Your task to perform on an android device: Open the phone app and click the voicemail tab. Image 0: 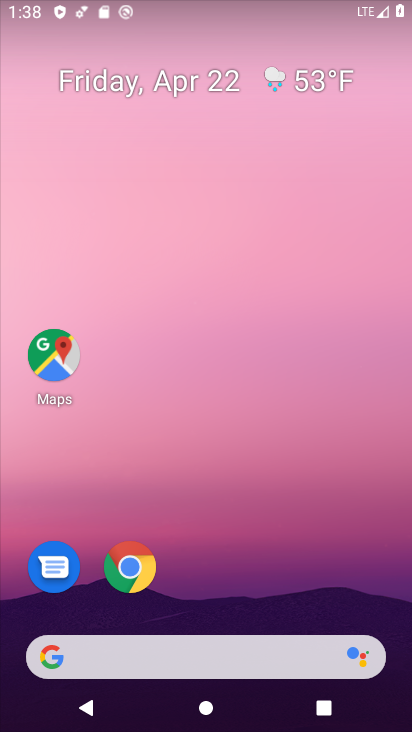
Step 0: drag from (346, 551) to (315, 34)
Your task to perform on an android device: Open the phone app and click the voicemail tab. Image 1: 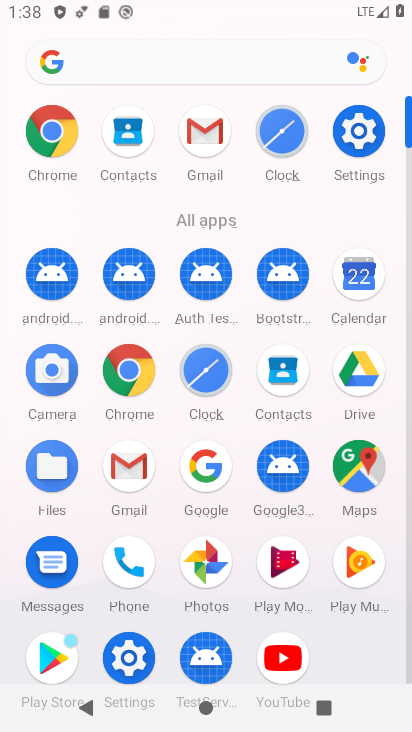
Step 1: click (129, 554)
Your task to perform on an android device: Open the phone app and click the voicemail tab. Image 2: 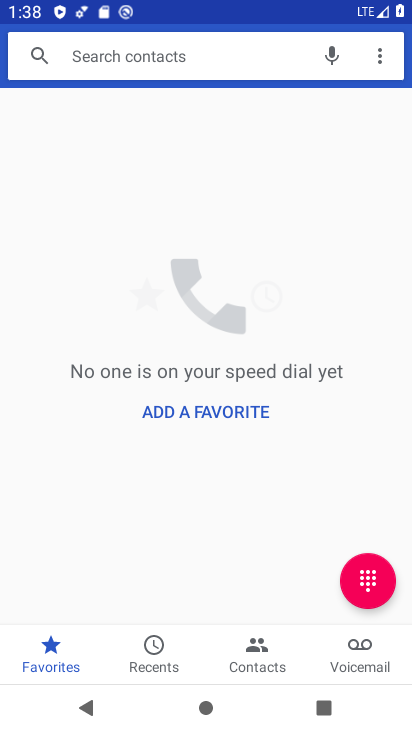
Step 2: click (336, 652)
Your task to perform on an android device: Open the phone app and click the voicemail tab. Image 3: 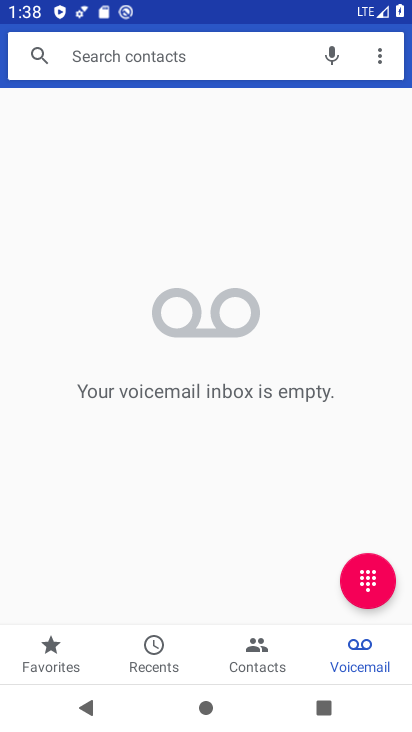
Step 3: task complete